Your task to perform on an android device: change timer sound Image 0: 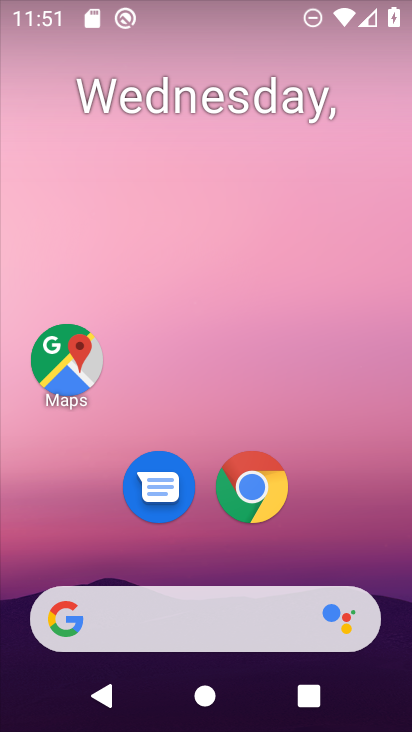
Step 0: drag from (344, 503) to (231, 20)
Your task to perform on an android device: change timer sound Image 1: 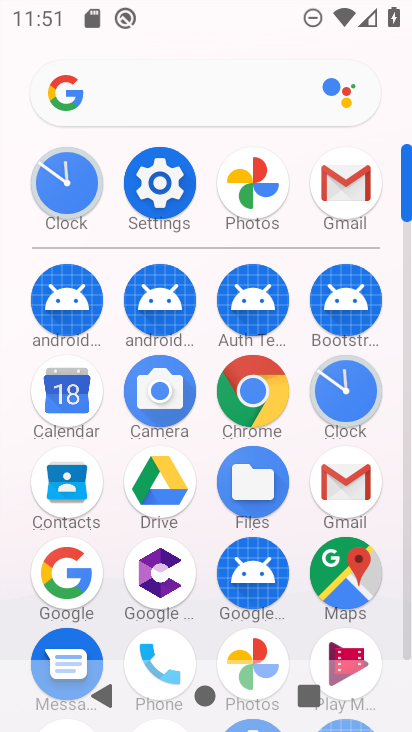
Step 1: click (352, 390)
Your task to perform on an android device: change timer sound Image 2: 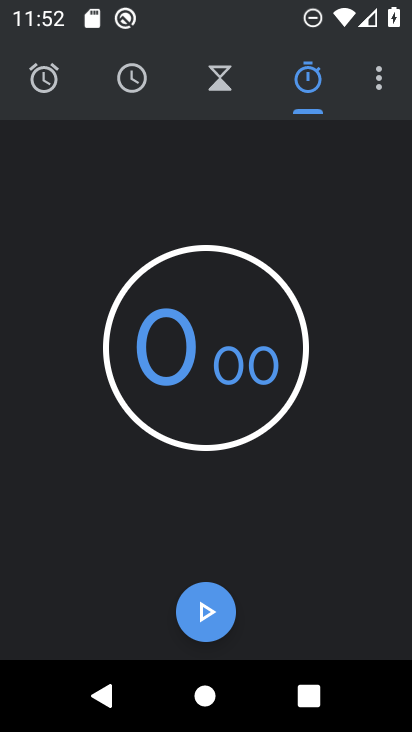
Step 2: click (225, 81)
Your task to perform on an android device: change timer sound Image 3: 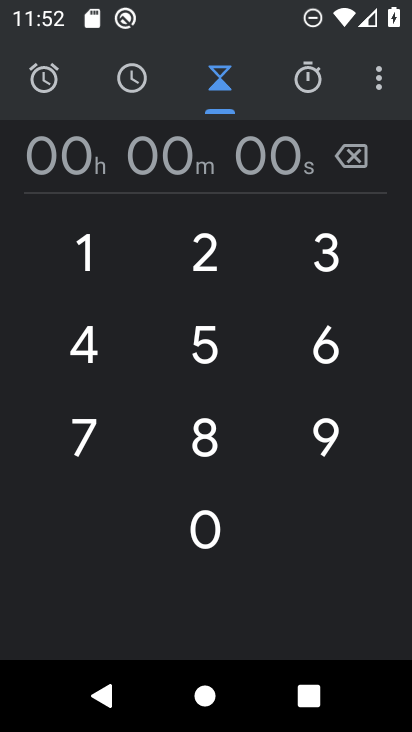
Step 3: click (92, 256)
Your task to perform on an android device: change timer sound Image 4: 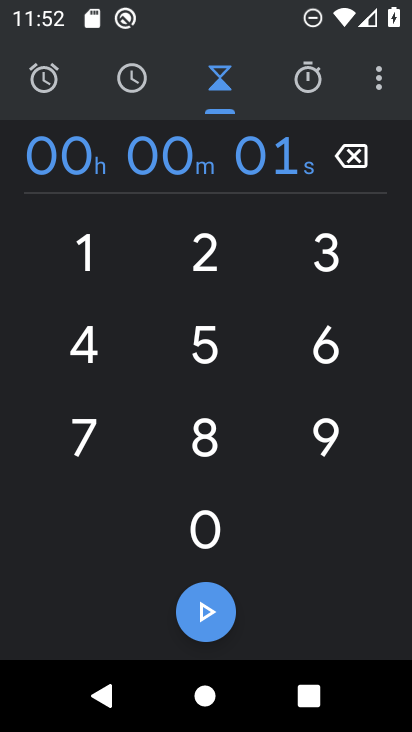
Step 4: click (92, 256)
Your task to perform on an android device: change timer sound Image 5: 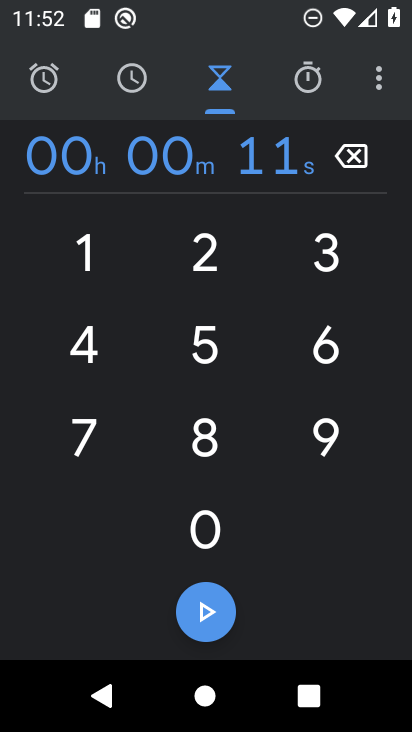
Step 5: click (92, 256)
Your task to perform on an android device: change timer sound Image 6: 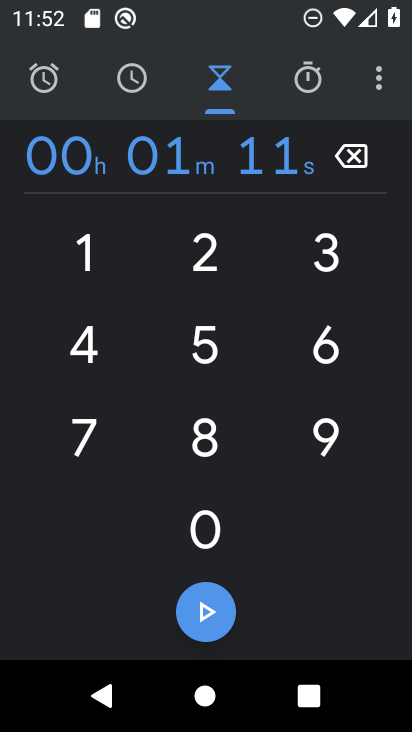
Step 6: click (92, 256)
Your task to perform on an android device: change timer sound Image 7: 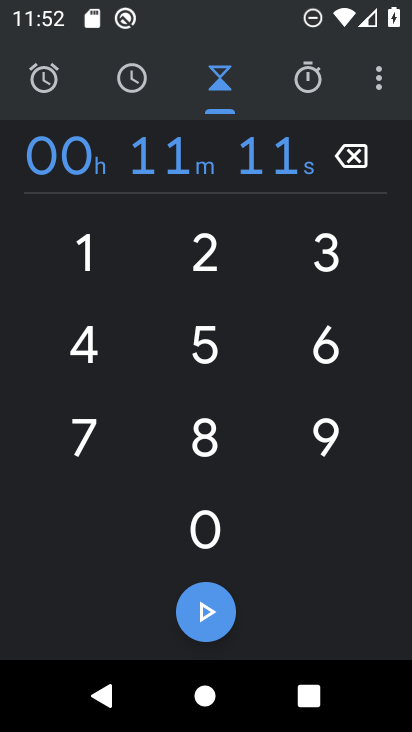
Step 7: click (92, 256)
Your task to perform on an android device: change timer sound Image 8: 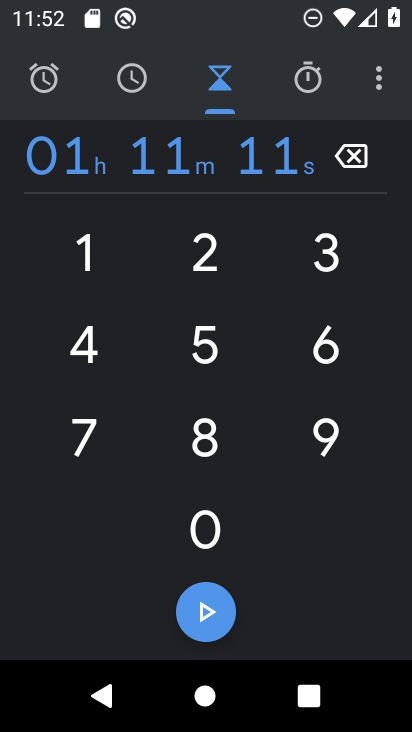
Step 8: task complete